Your task to perform on an android device: open wifi settings Image 0: 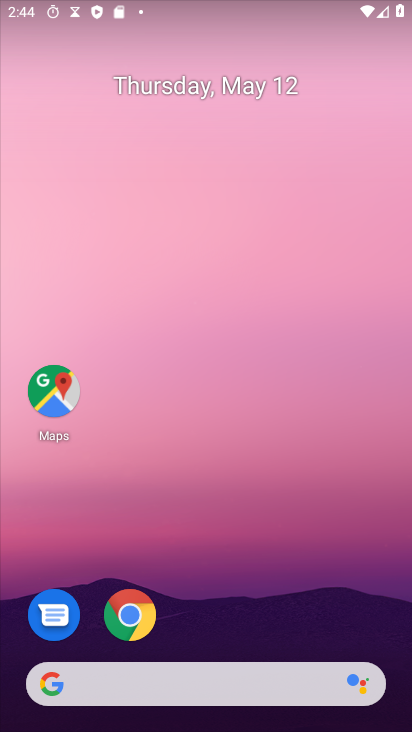
Step 0: drag from (292, 0) to (292, 564)
Your task to perform on an android device: open wifi settings Image 1: 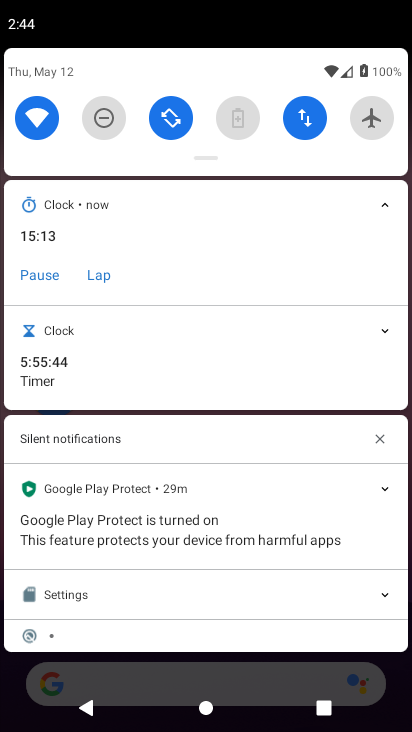
Step 1: click (46, 121)
Your task to perform on an android device: open wifi settings Image 2: 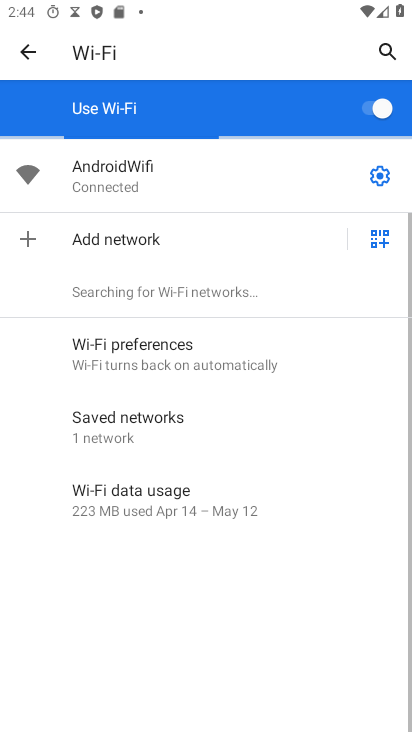
Step 2: click (385, 172)
Your task to perform on an android device: open wifi settings Image 3: 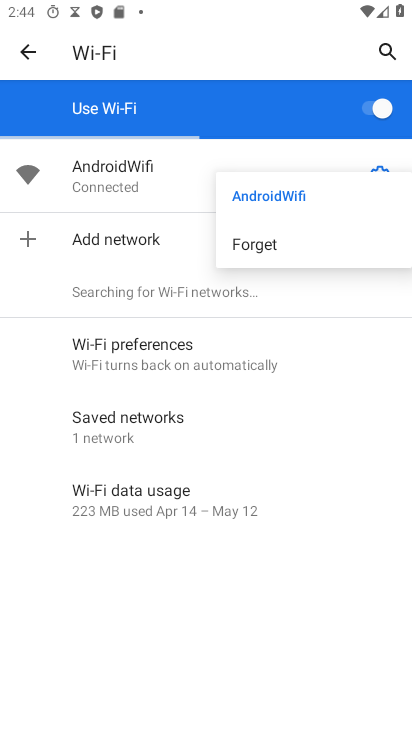
Step 3: click (356, 618)
Your task to perform on an android device: open wifi settings Image 4: 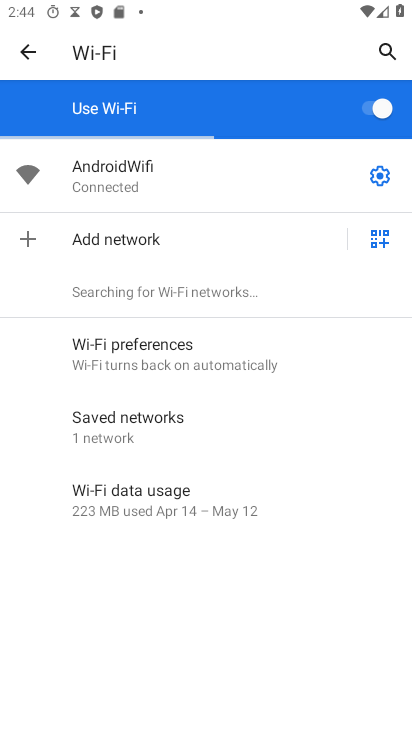
Step 4: click (372, 176)
Your task to perform on an android device: open wifi settings Image 5: 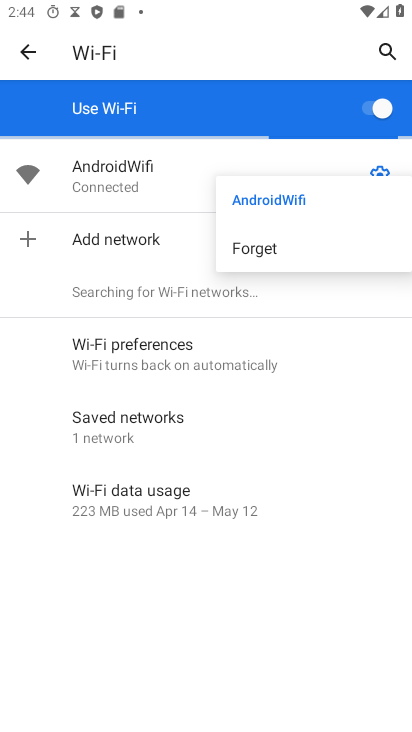
Step 5: click (376, 173)
Your task to perform on an android device: open wifi settings Image 6: 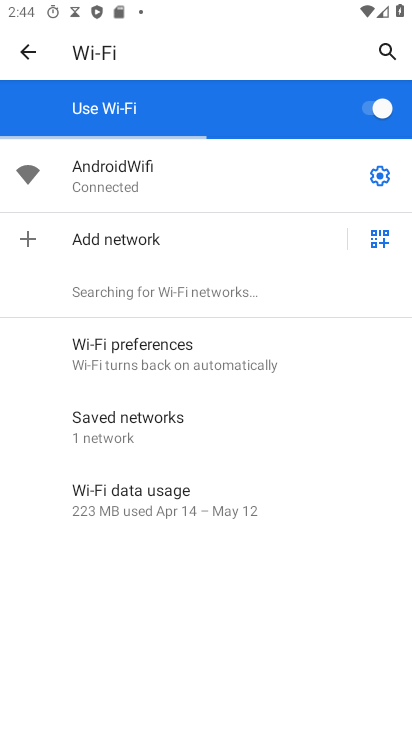
Step 6: click (379, 168)
Your task to perform on an android device: open wifi settings Image 7: 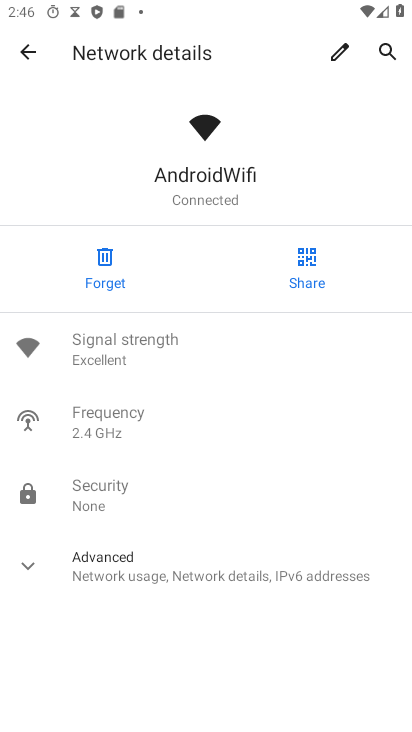
Step 7: task complete